Your task to perform on an android device: turn off picture-in-picture Image 0: 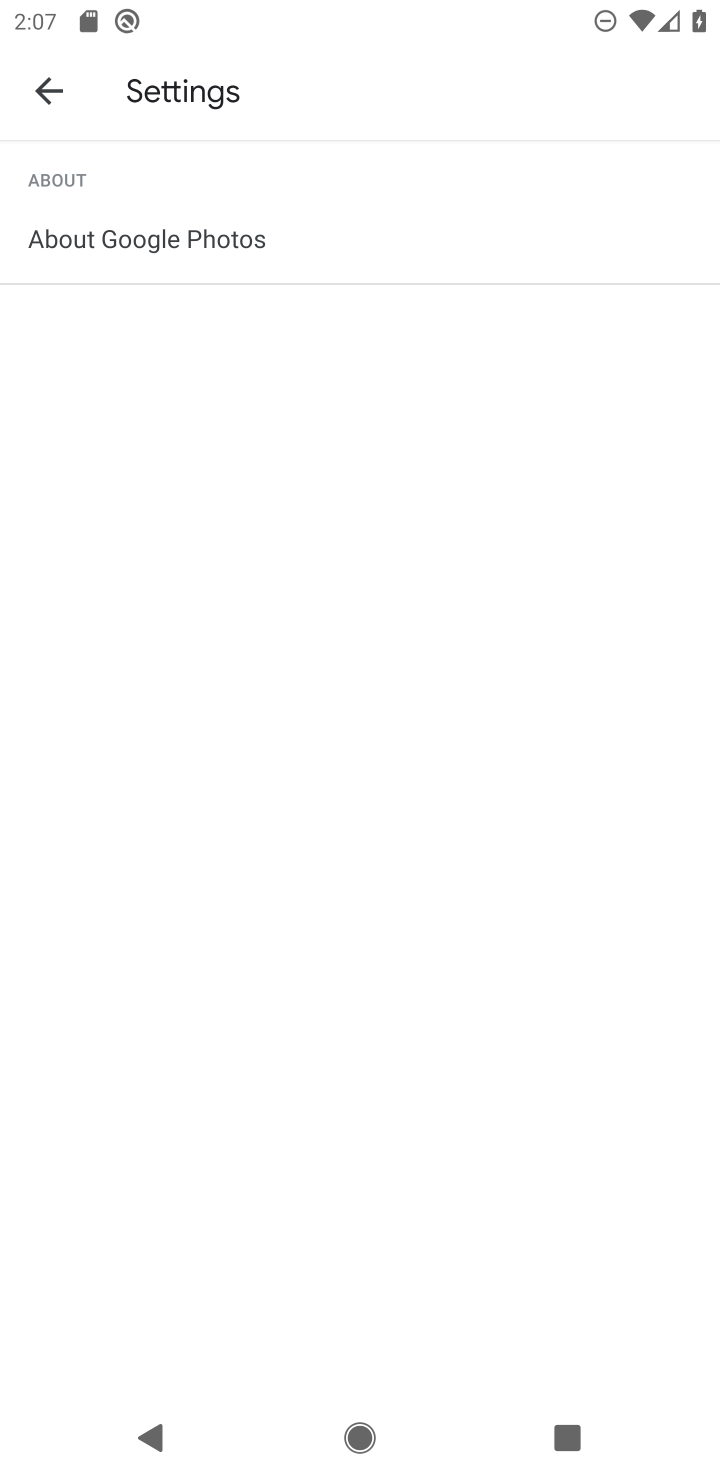
Step 0: press home button
Your task to perform on an android device: turn off picture-in-picture Image 1: 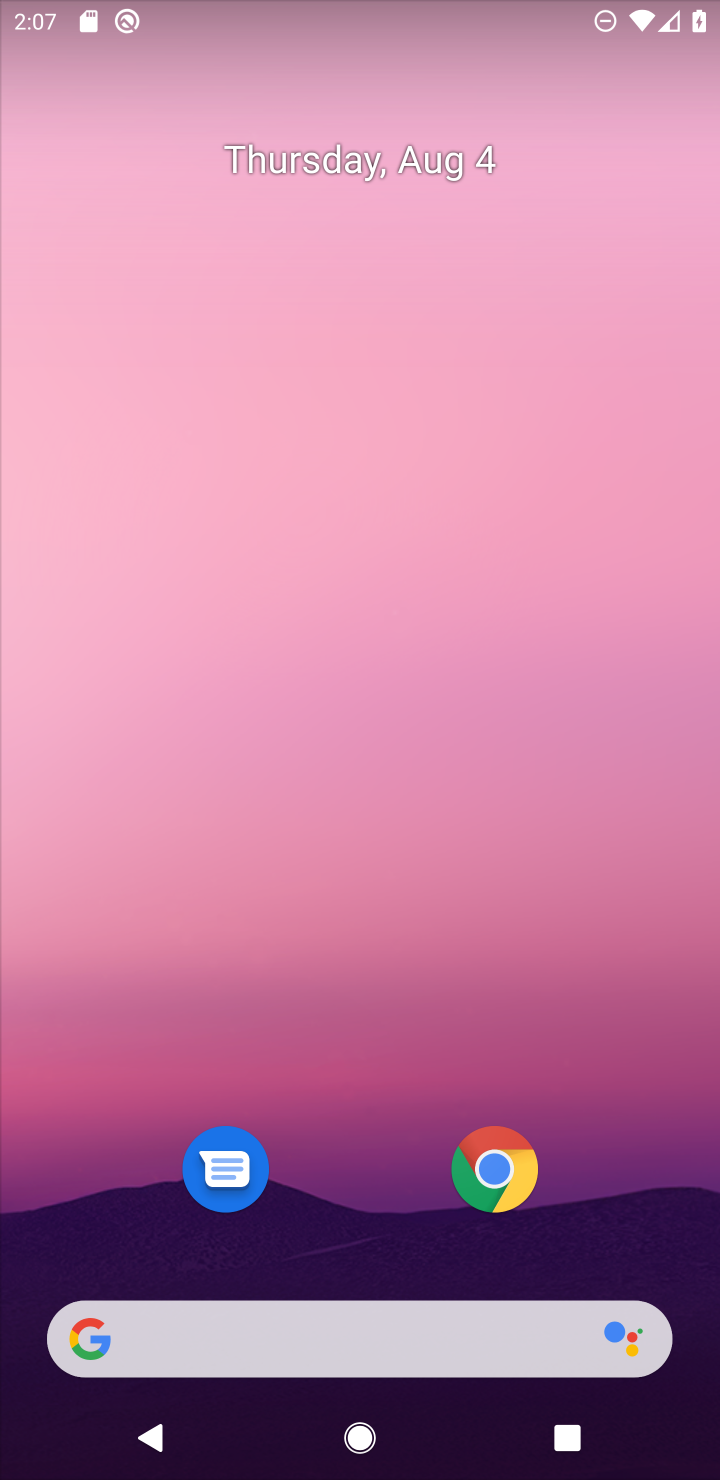
Step 1: click (501, 1173)
Your task to perform on an android device: turn off picture-in-picture Image 2: 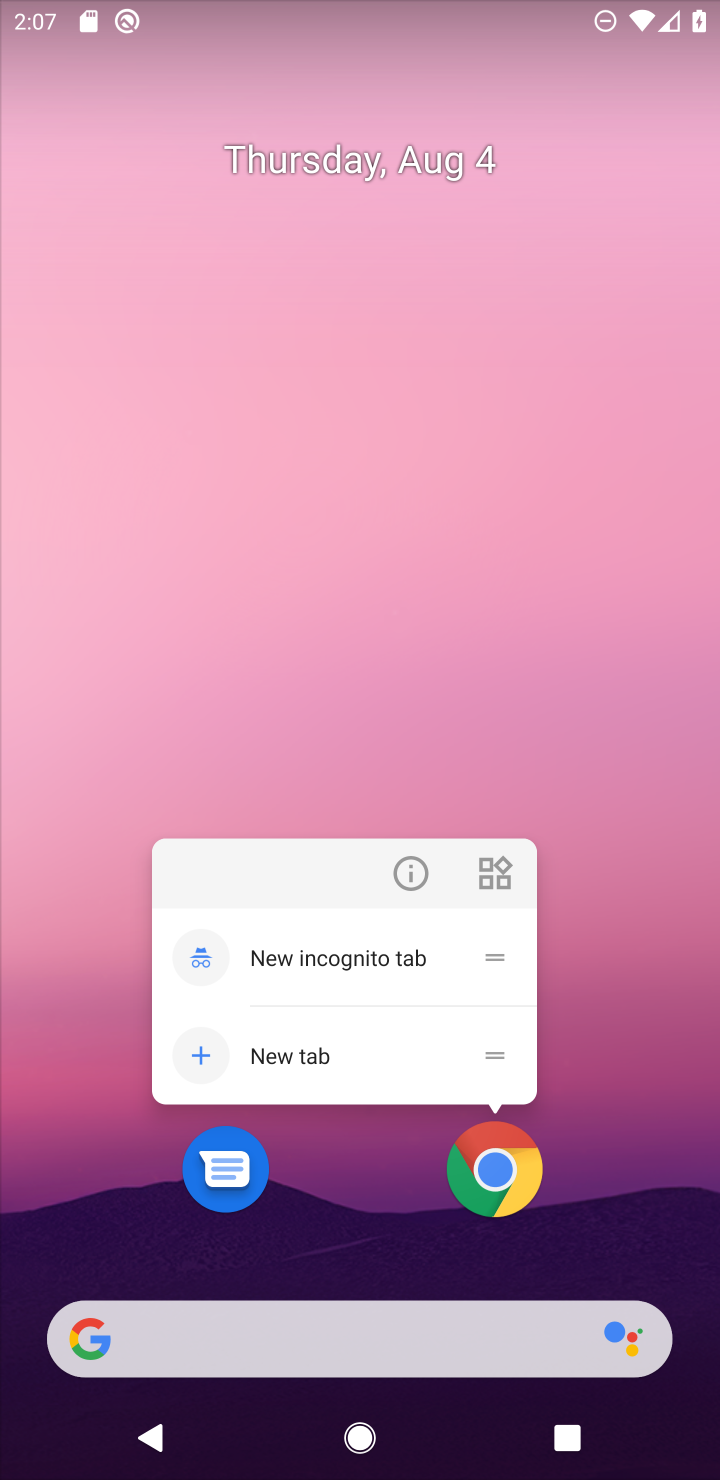
Step 2: click (409, 869)
Your task to perform on an android device: turn off picture-in-picture Image 3: 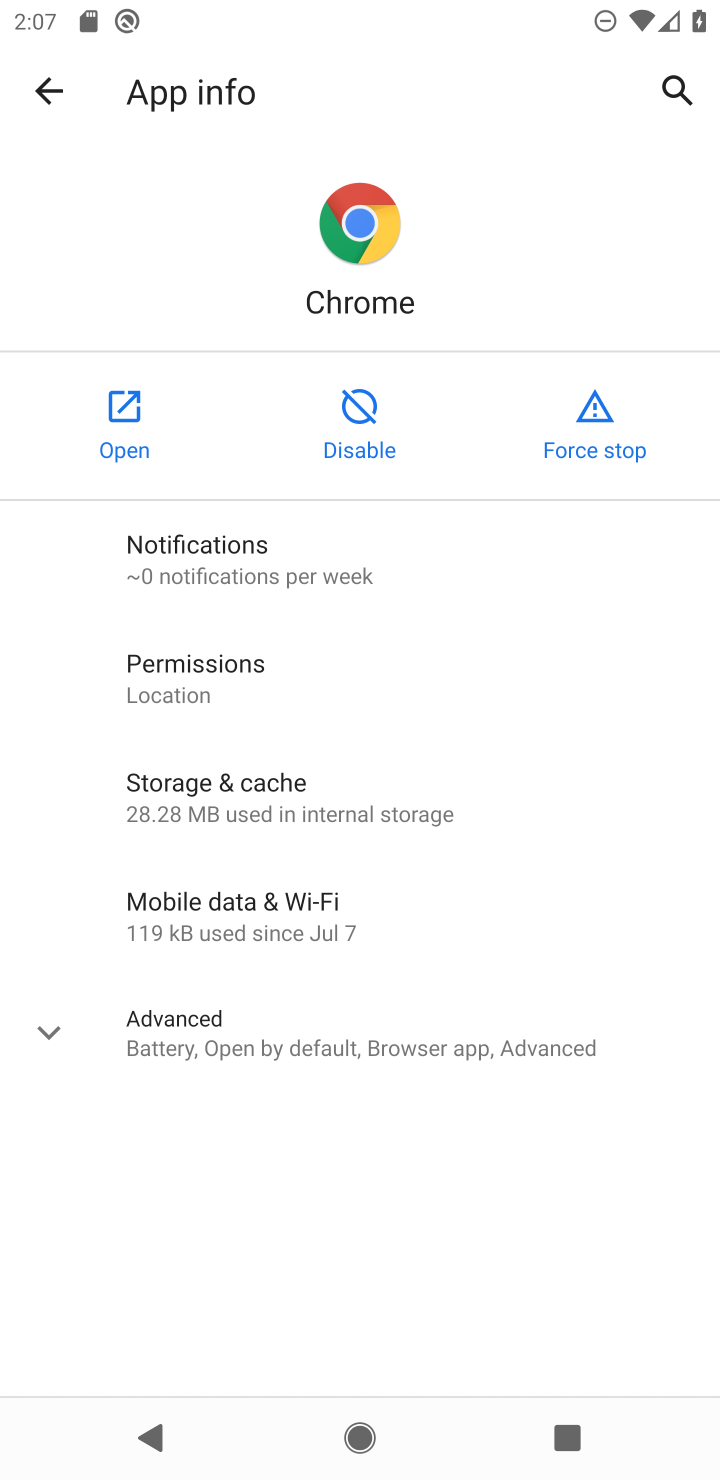
Step 3: click (57, 1049)
Your task to perform on an android device: turn off picture-in-picture Image 4: 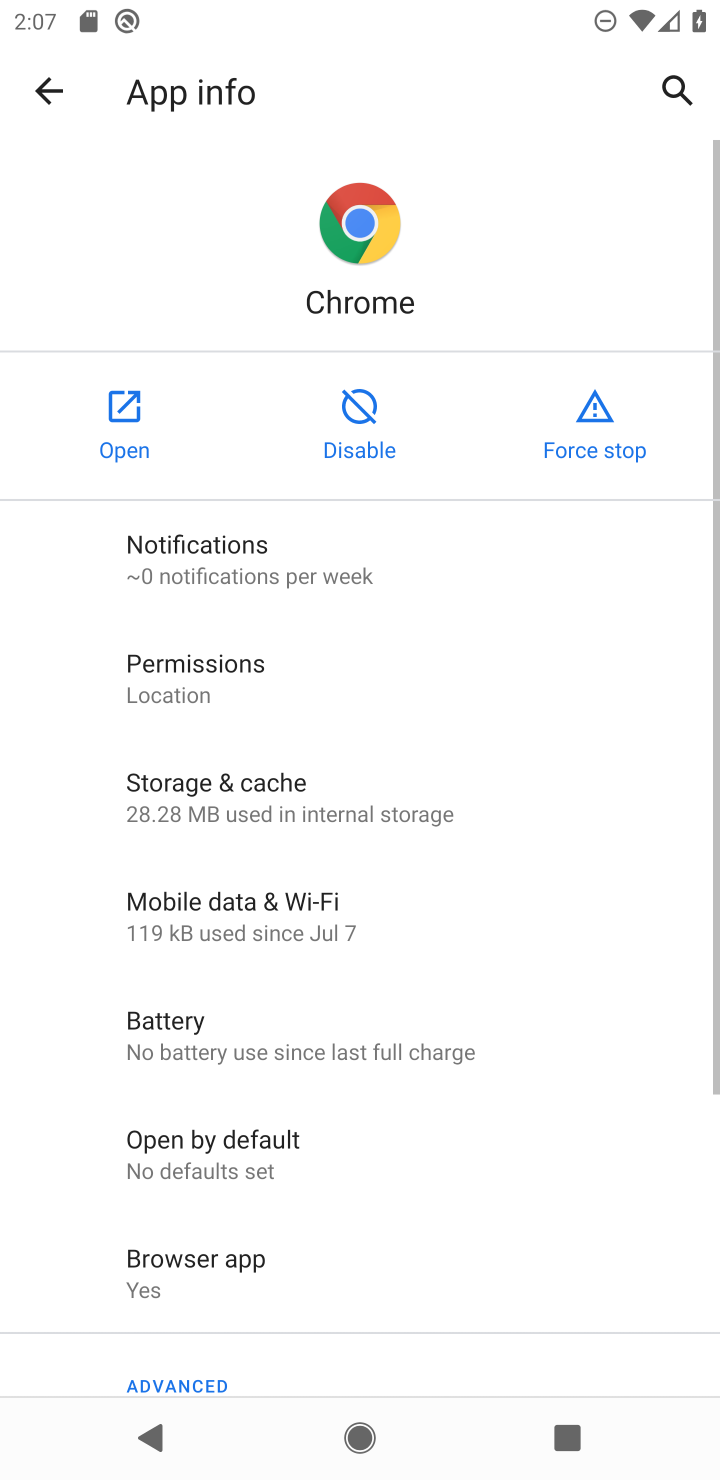
Step 4: drag from (377, 1199) to (391, 598)
Your task to perform on an android device: turn off picture-in-picture Image 5: 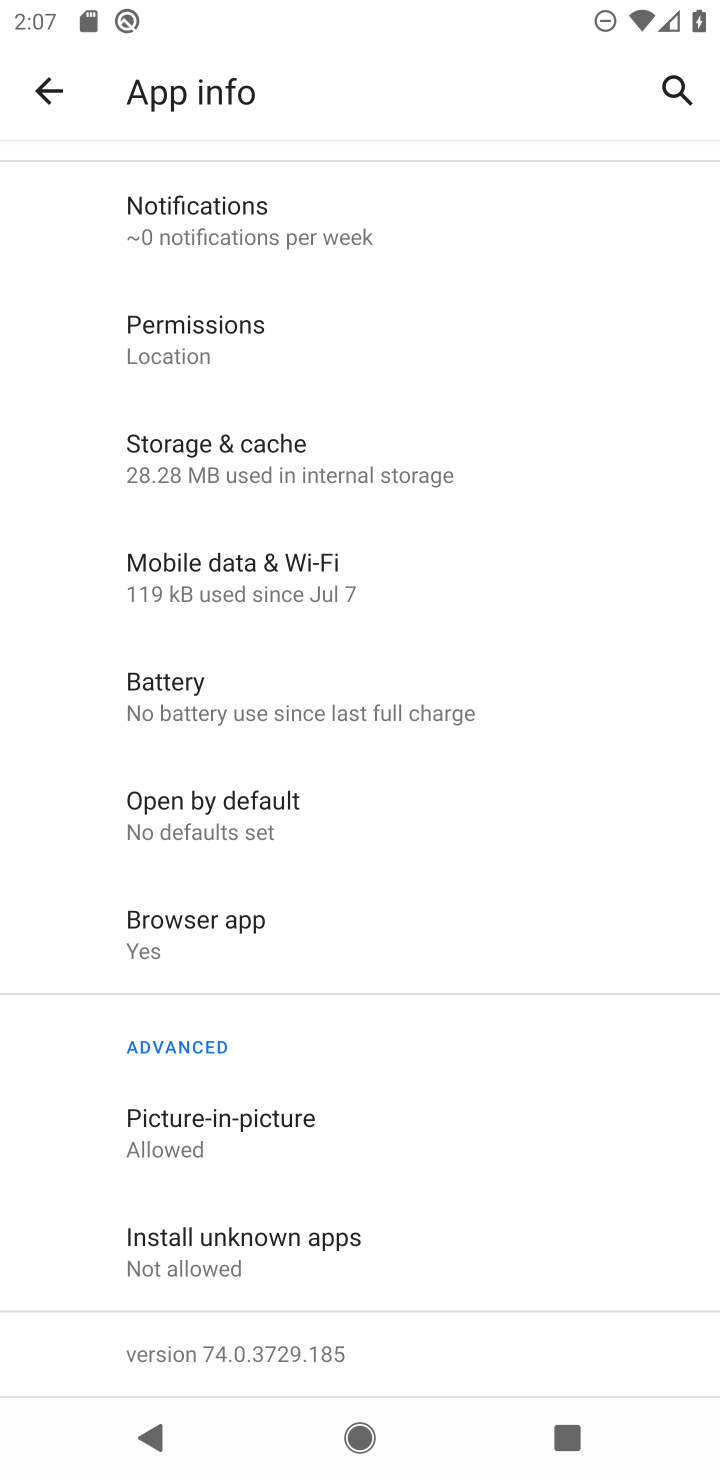
Step 5: click (166, 1123)
Your task to perform on an android device: turn off picture-in-picture Image 6: 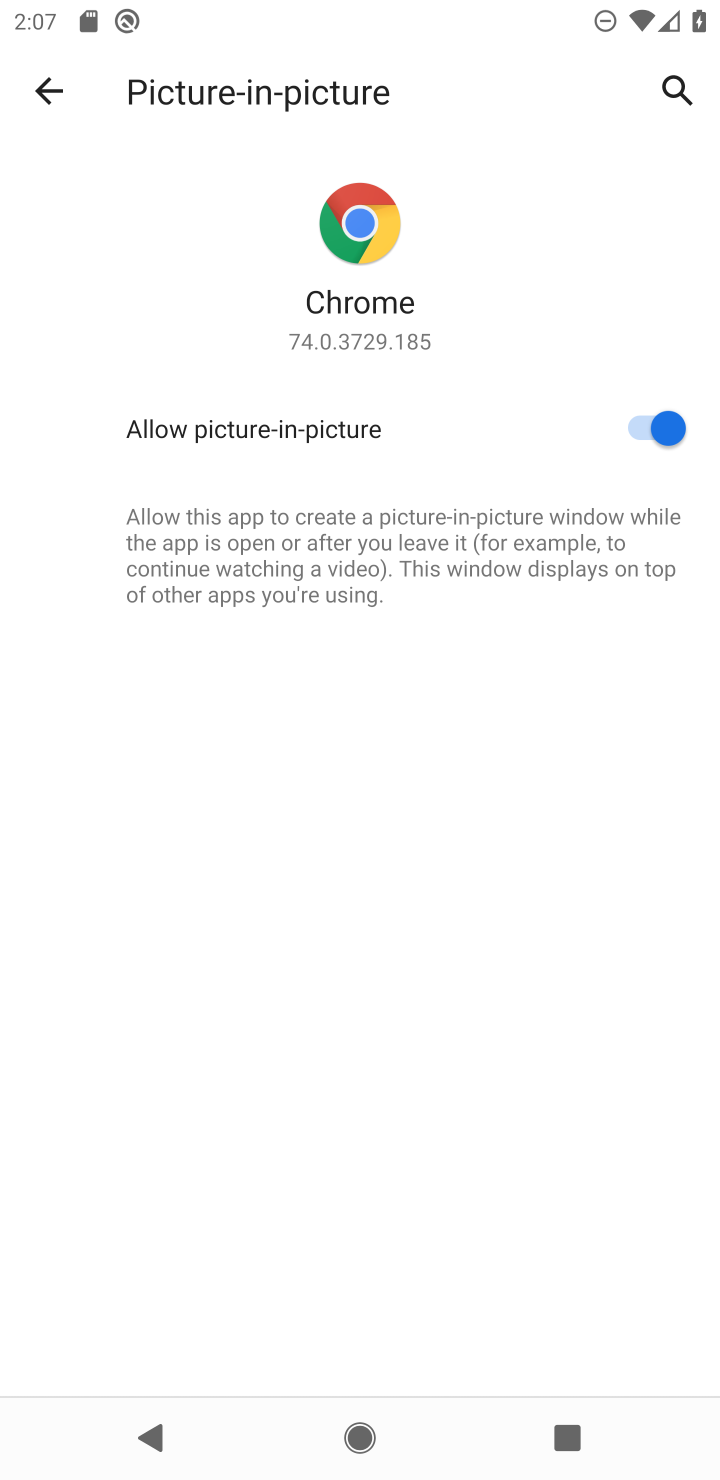
Step 6: click (648, 434)
Your task to perform on an android device: turn off picture-in-picture Image 7: 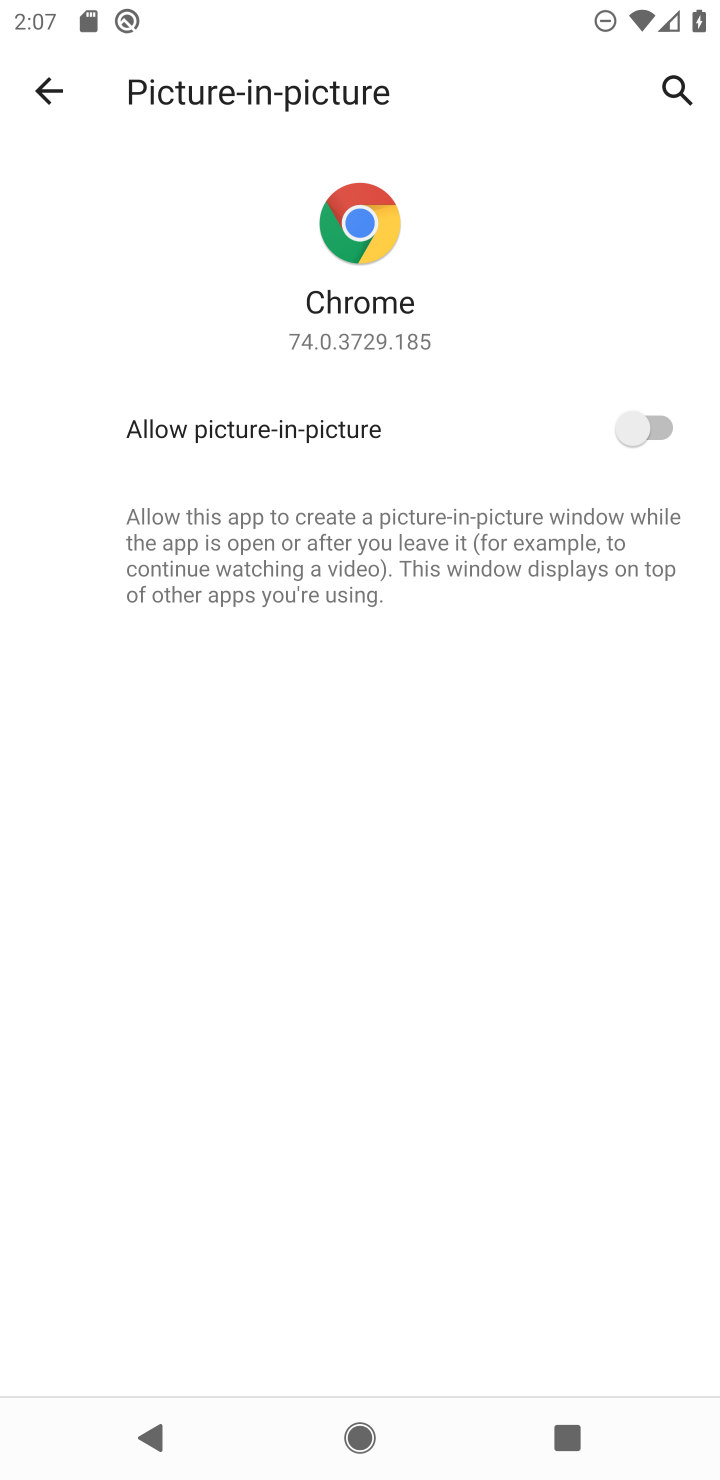
Step 7: task complete